Your task to perform on an android device: turn on translation in the chrome app Image 0: 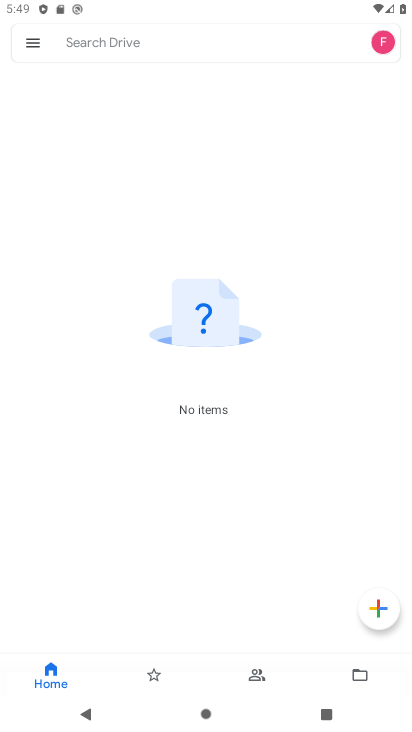
Step 0: press home button
Your task to perform on an android device: turn on translation in the chrome app Image 1: 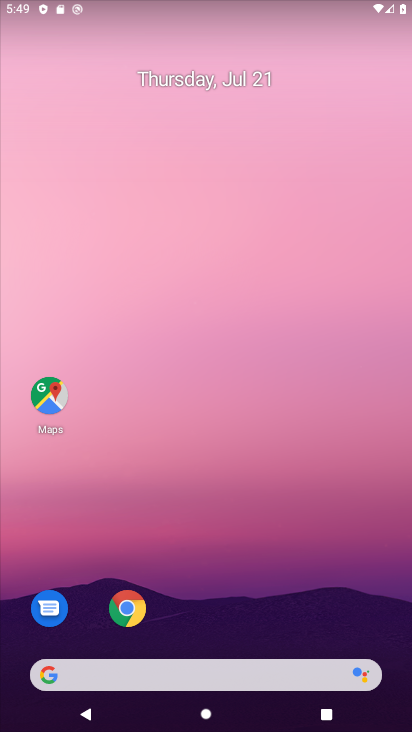
Step 1: click (126, 608)
Your task to perform on an android device: turn on translation in the chrome app Image 2: 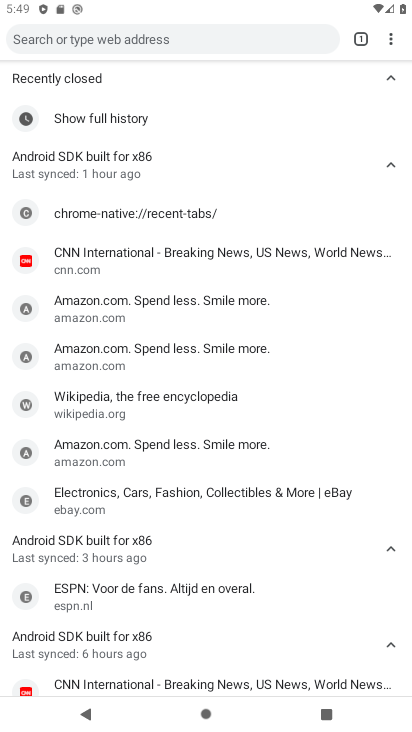
Step 2: click (391, 37)
Your task to perform on an android device: turn on translation in the chrome app Image 3: 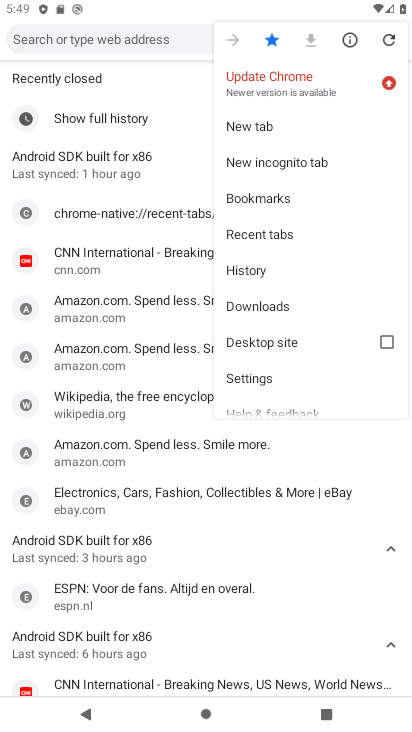
Step 3: click (256, 377)
Your task to perform on an android device: turn on translation in the chrome app Image 4: 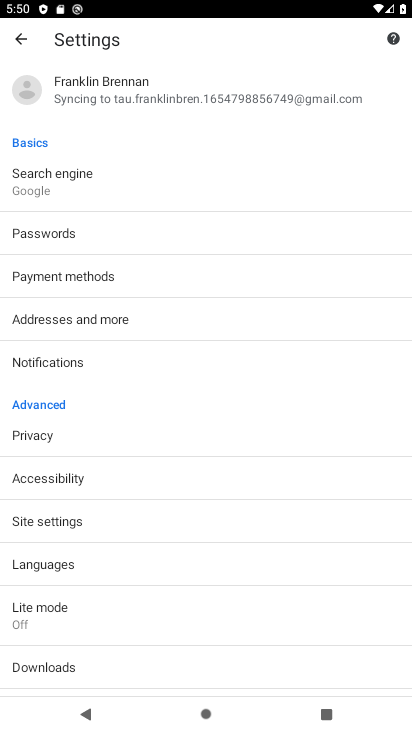
Step 4: click (51, 569)
Your task to perform on an android device: turn on translation in the chrome app Image 5: 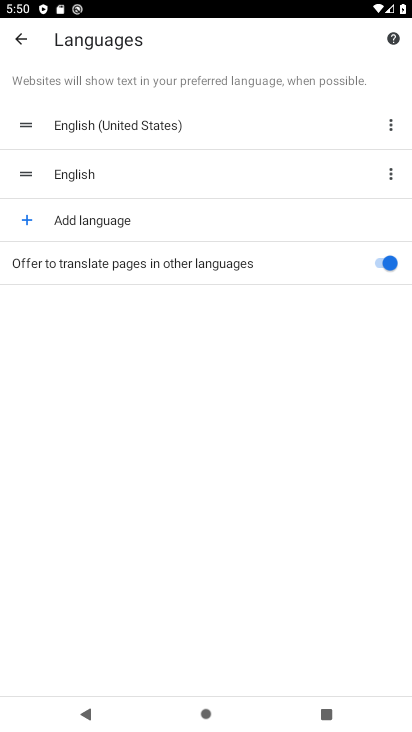
Step 5: task complete